Your task to perform on an android device: clear history in the chrome app Image 0: 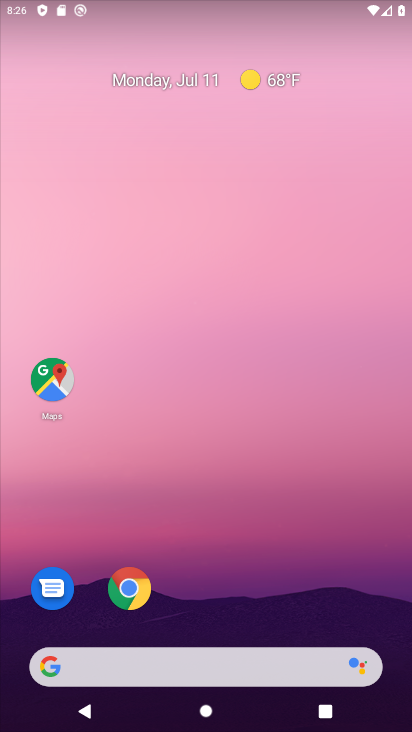
Step 0: drag from (193, 635) to (159, 115)
Your task to perform on an android device: clear history in the chrome app Image 1: 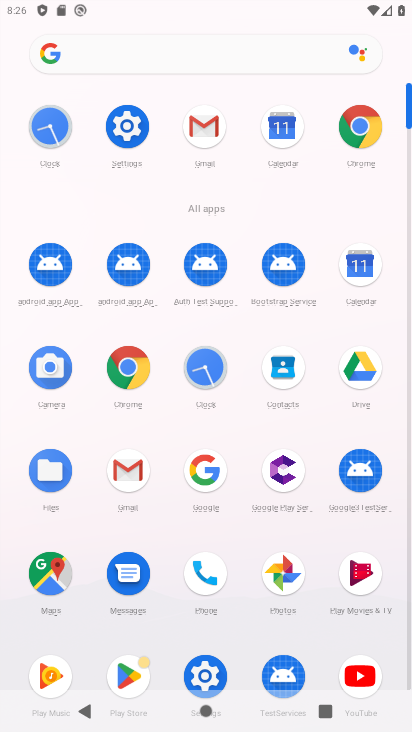
Step 1: click (142, 378)
Your task to perform on an android device: clear history in the chrome app Image 2: 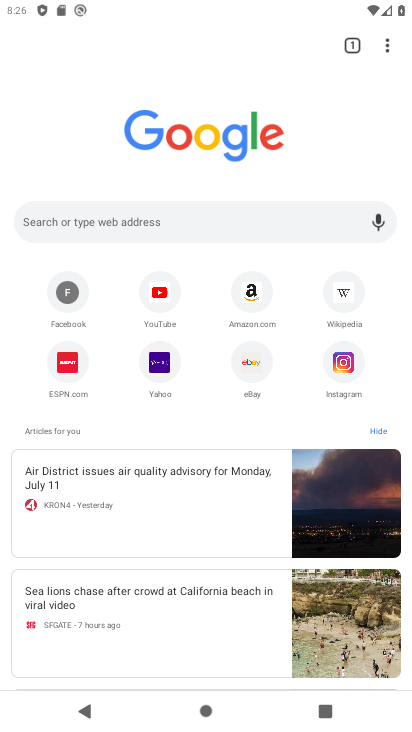
Step 2: click (388, 45)
Your task to perform on an android device: clear history in the chrome app Image 3: 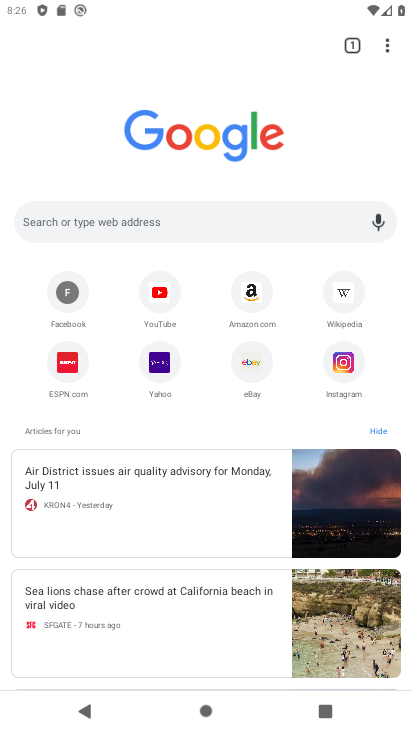
Step 3: drag from (381, 45) to (214, 252)
Your task to perform on an android device: clear history in the chrome app Image 4: 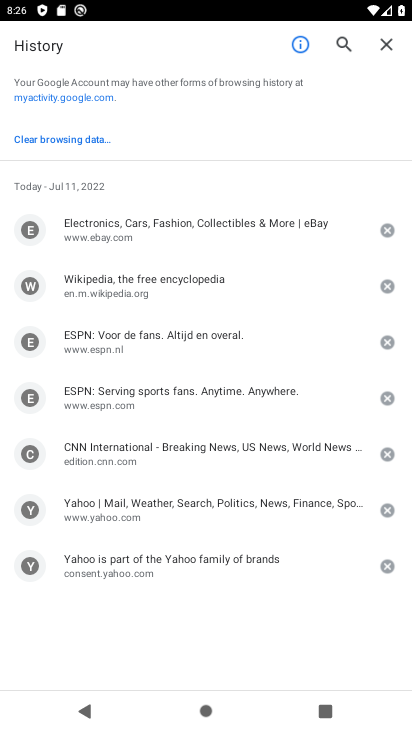
Step 4: click (69, 140)
Your task to perform on an android device: clear history in the chrome app Image 5: 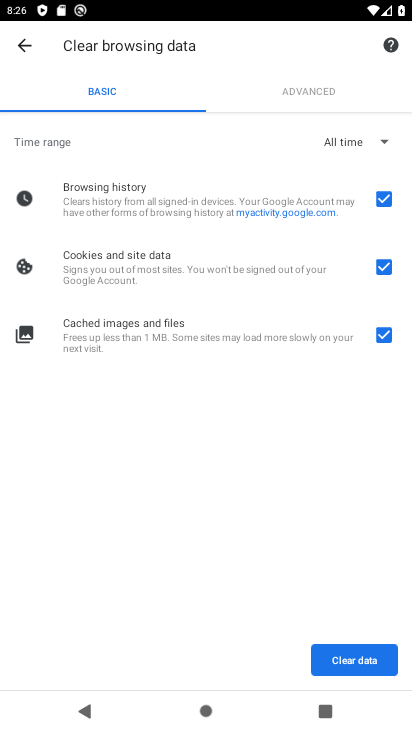
Step 5: click (363, 661)
Your task to perform on an android device: clear history in the chrome app Image 6: 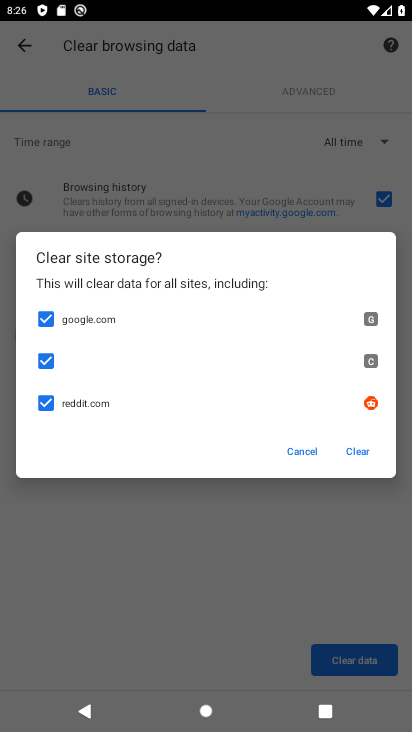
Step 6: click (364, 446)
Your task to perform on an android device: clear history in the chrome app Image 7: 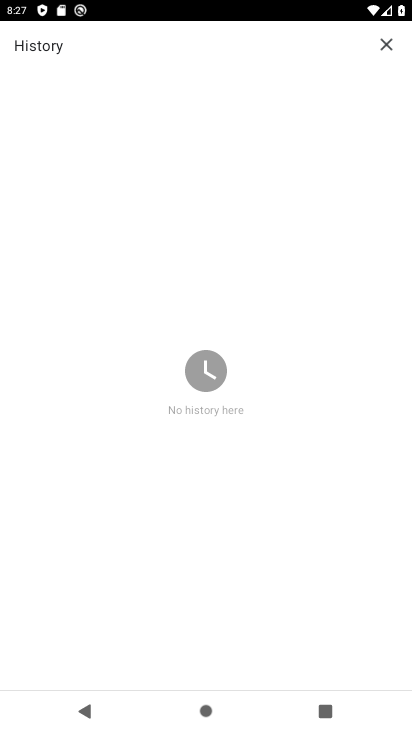
Step 7: task complete